Your task to perform on an android device: turn on javascript in the chrome app Image 0: 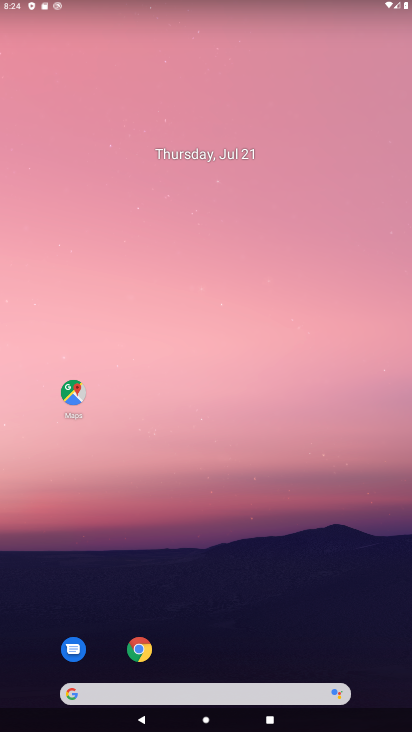
Step 0: click (74, 397)
Your task to perform on an android device: turn on javascript in the chrome app Image 1: 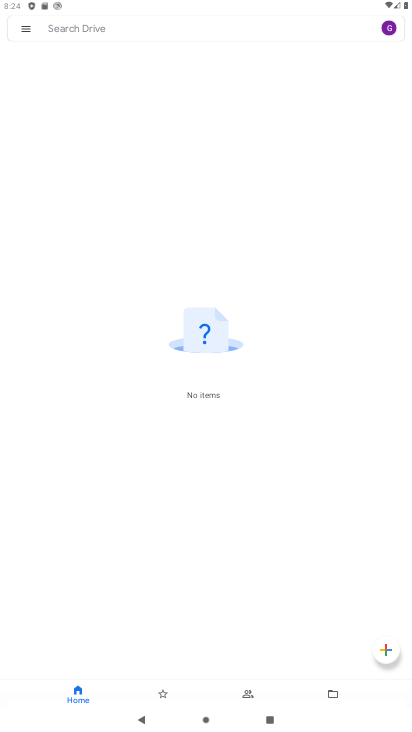
Step 1: press home button
Your task to perform on an android device: turn on javascript in the chrome app Image 2: 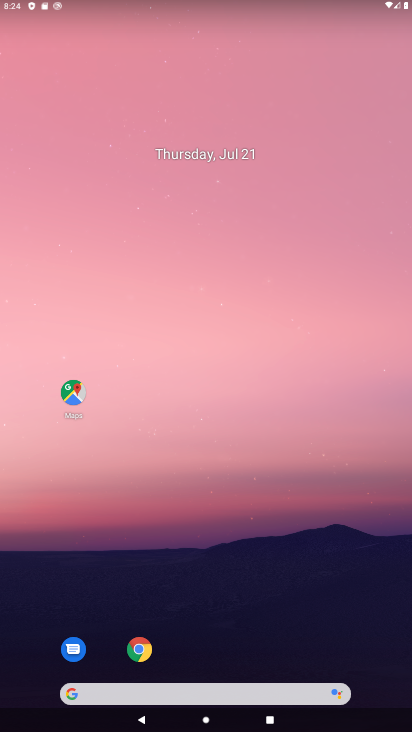
Step 2: click (136, 643)
Your task to perform on an android device: turn on javascript in the chrome app Image 3: 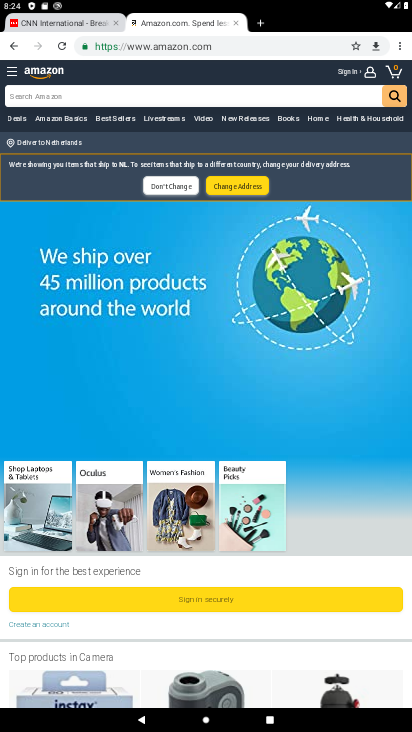
Step 3: click (408, 54)
Your task to perform on an android device: turn on javascript in the chrome app Image 4: 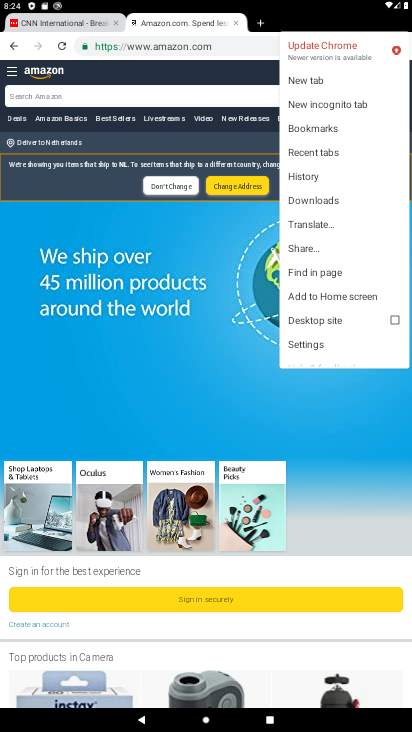
Step 4: click (293, 344)
Your task to perform on an android device: turn on javascript in the chrome app Image 5: 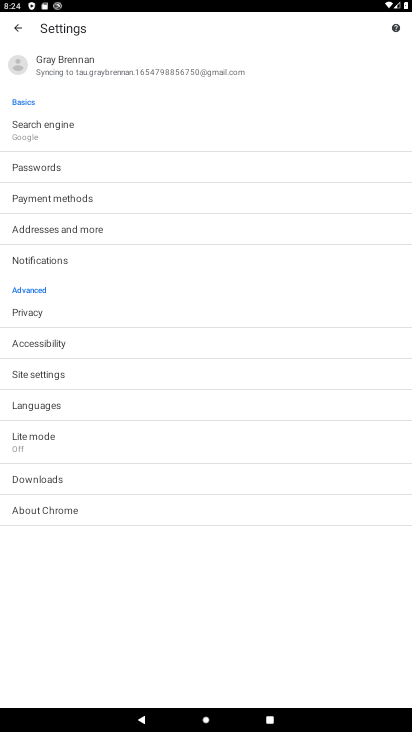
Step 5: click (247, 366)
Your task to perform on an android device: turn on javascript in the chrome app Image 6: 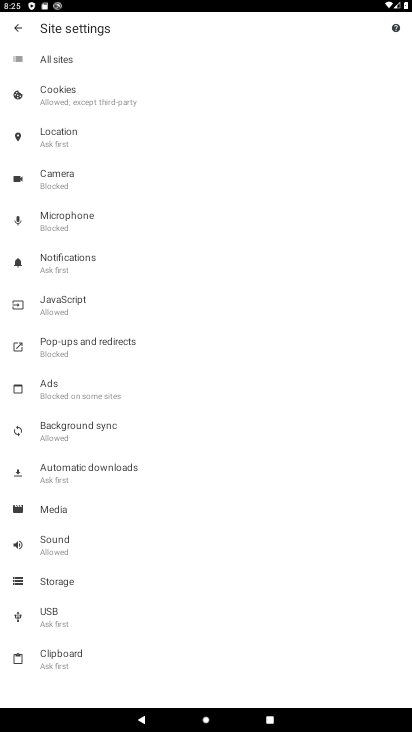
Step 6: click (101, 305)
Your task to perform on an android device: turn on javascript in the chrome app Image 7: 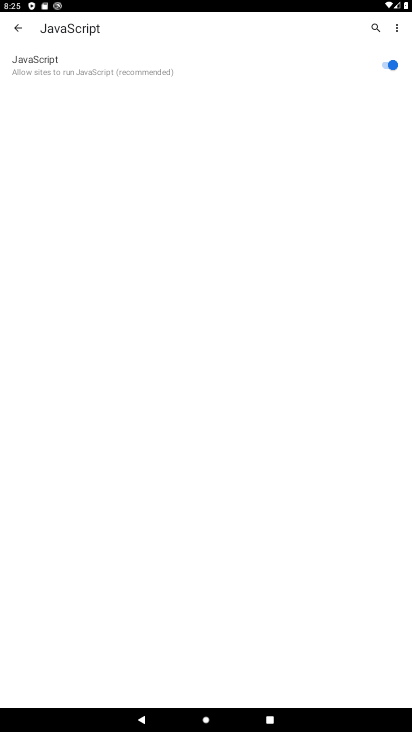
Step 7: task complete